Your task to perform on an android device: toggle show notifications on the lock screen Image 0: 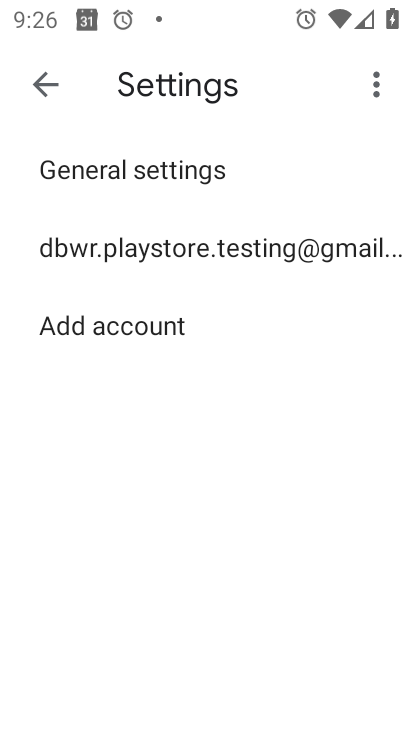
Step 0: press back button
Your task to perform on an android device: toggle show notifications on the lock screen Image 1: 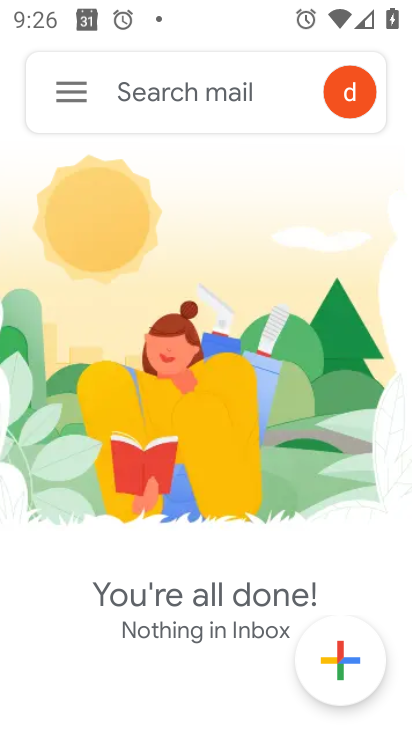
Step 1: press back button
Your task to perform on an android device: toggle show notifications on the lock screen Image 2: 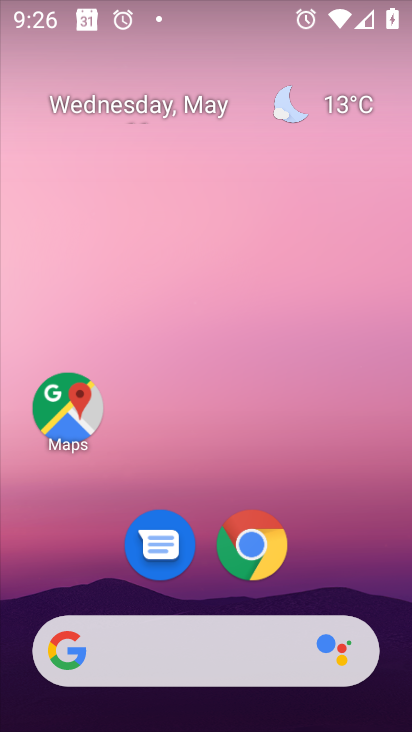
Step 2: drag from (351, 570) to (218, 10)
Your task to perform on an android device: toggle show notifications on the lock screen Image 3: 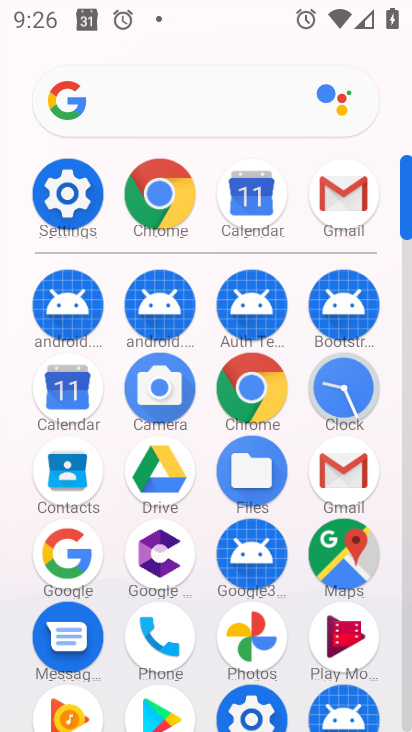
Step 3: drag from (18, 594) to (10, 314)
Your task to perform on an android device: toggle show notifications on the lock screen Image 4: 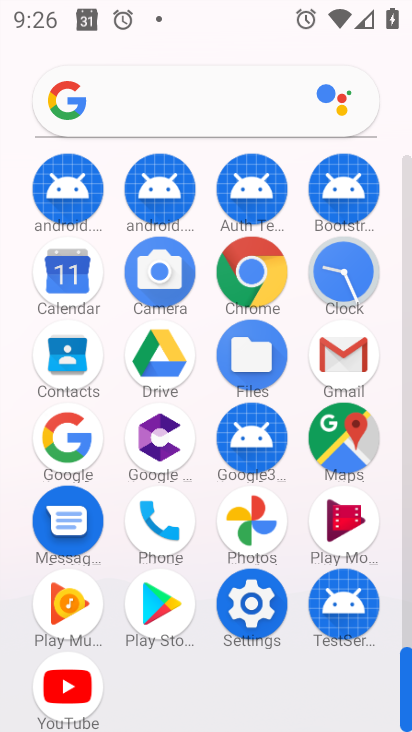
Step 4: click (250, 600)
Your task to perform on an android device: toggle show notifications on the lock screen Image 5: 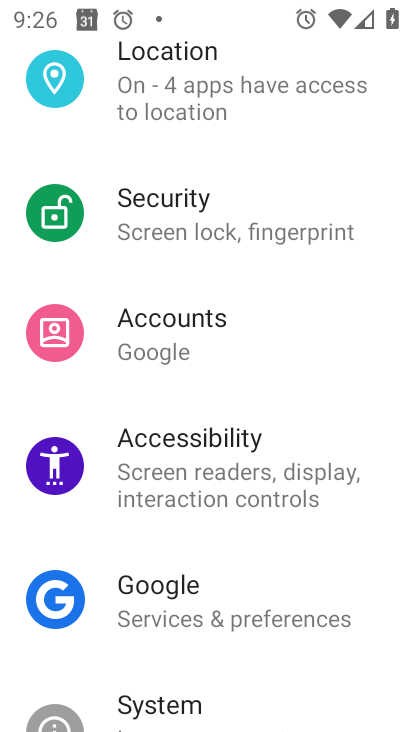
Step 5: drag from (274, 200) to (288, 642)
Your task to perform on an android device: toggle show notifications on the lock screen Image 6: 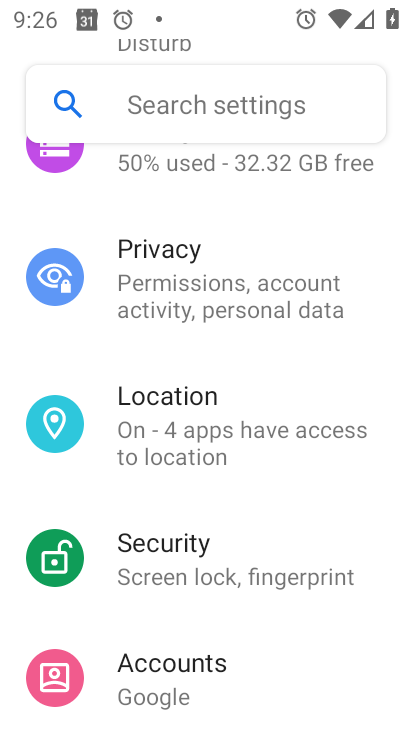
Step 6: drag from (287, 265) to (287, 607)
Your task to perform on an android device: toggle show notifications on the lock screen Image 7: 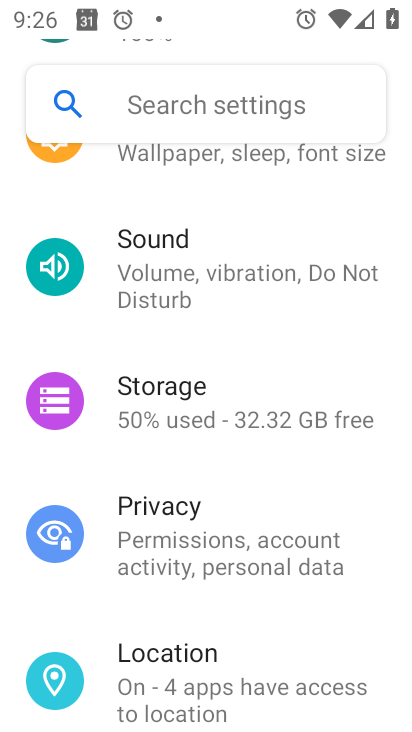
Step 7: drag from (278, 212) to (277, 593)
Your task to perform on an android device: toggle show notifications on the lock screen Image 8: 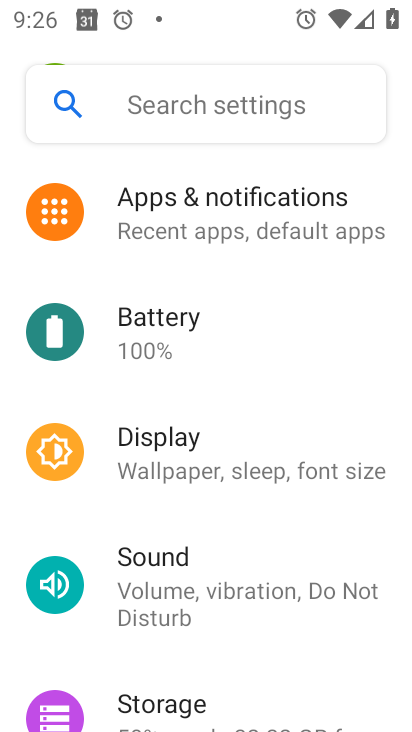
Step 8: drag from (261, 257) to (261, 610)
Your task to perform on an android device: toggle show notifications on the lock screen Image 9: 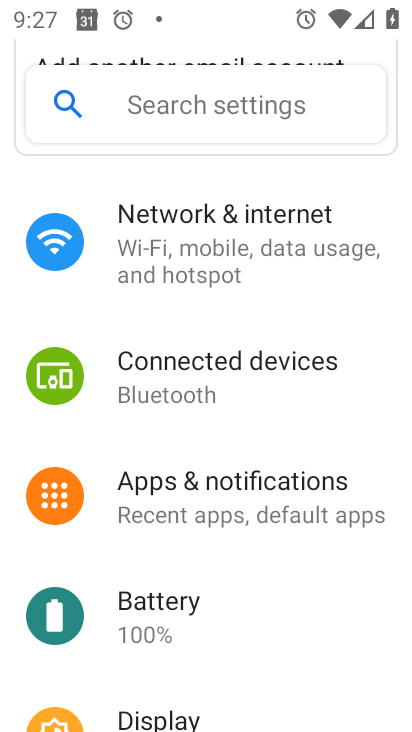
Step 9: click (227, 470)
Your task to perform on an android device: toggle show notifications on the lock screen Image 10: 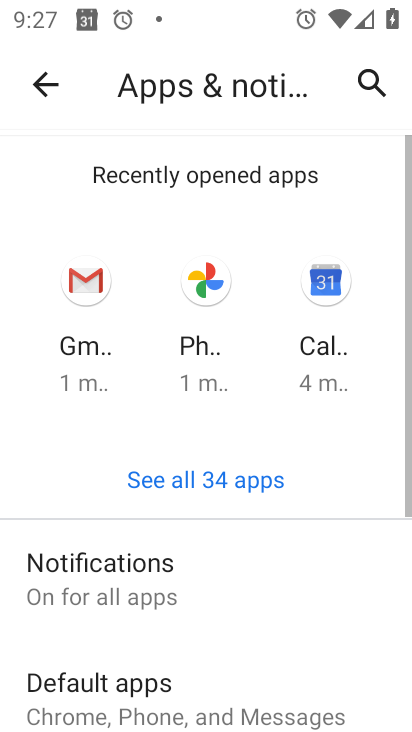
Step 10: click (195, 587)
Your task to perform on an android device: toggle show notifications on the lock screen Image 11: 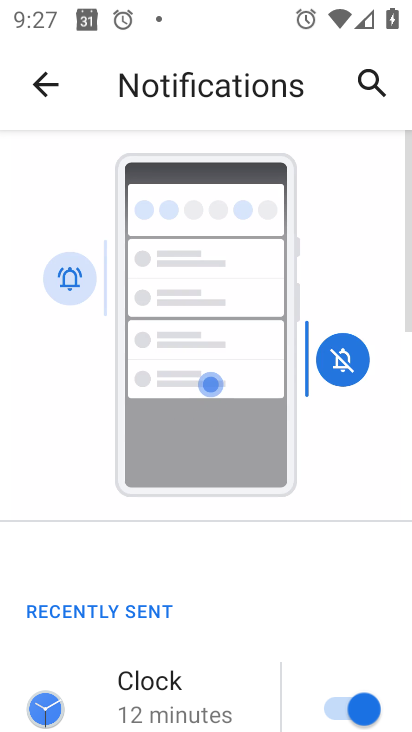
Step 11: drag from (220, 612) to (251, 141)
Your task to perform on an android device: toggle show notifications on the lock screen Image 12: 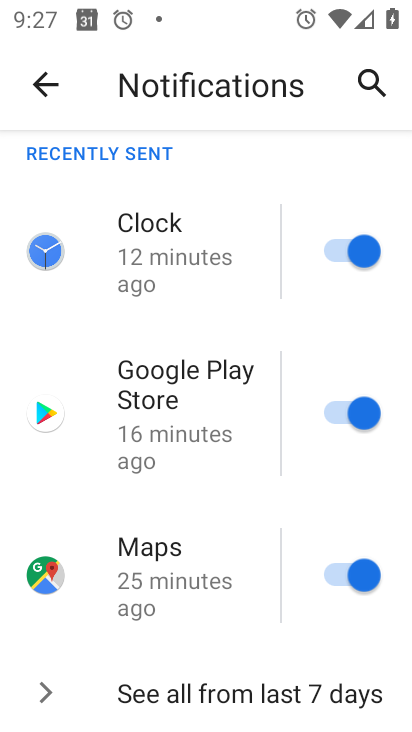
Step 12: drag from (192, 606) to (206, 154)
Your task to perform on an android device: toggle show notifications on the lock screen Image 13: 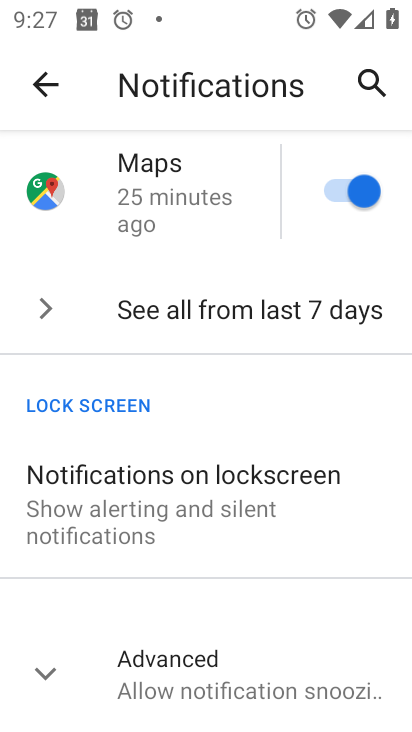
Step 13: click (247, 494)
Your task to perform on an android device: toggle show notifications on the lock screen Image 14: 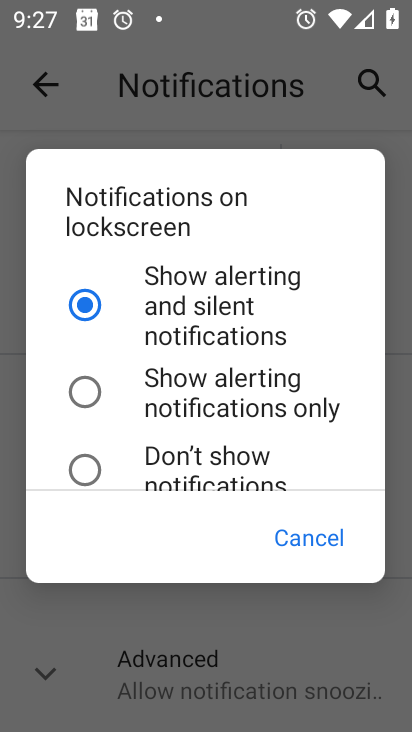
Step 14: click (237, 305)
Your task to perform on an android device: toggle show notifications on the lock screen Image 15: 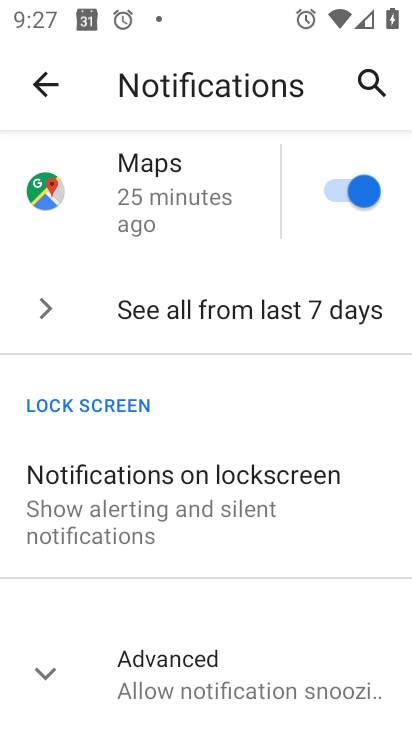
Step 15: click (223, 482)
Your task to perform on an android device: toggle show notifications on the lock screen Image 16: 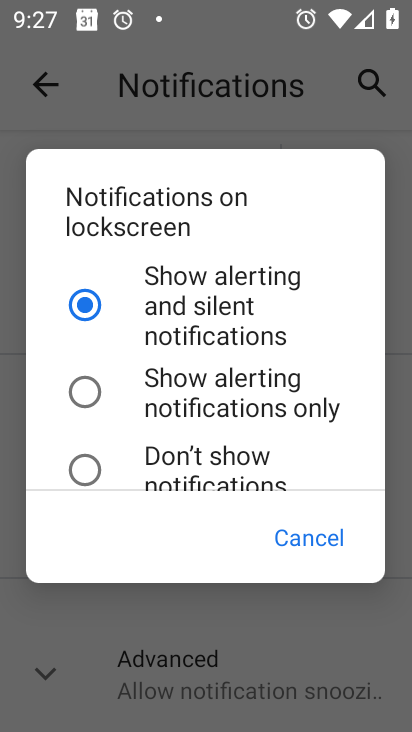
Step 16: click (216, 404)
Your task to perform on an android device: toggle show notifications on the lock screen Image 17: 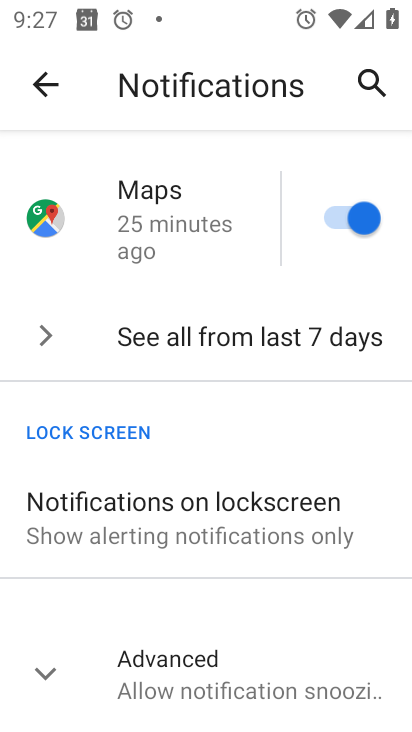
Step 17: task complete